Your task to perform on an android device: turn on the 24-hour format for clock Image 0: 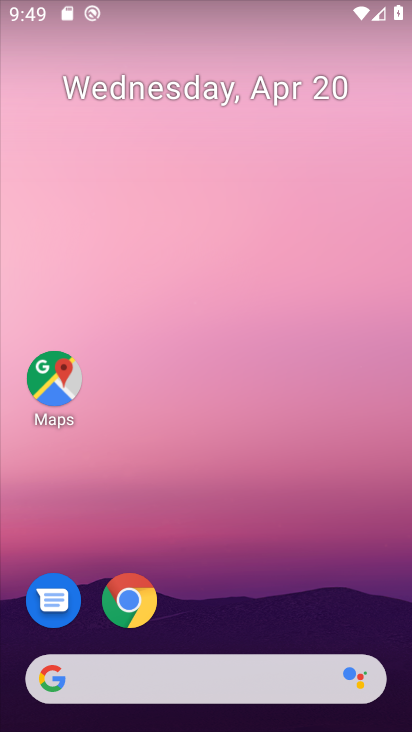
Step 0: drag from (254, 589) to (262, 60)
Your task to perform on an android device: turn on the 24-hour format for clock Image 1: 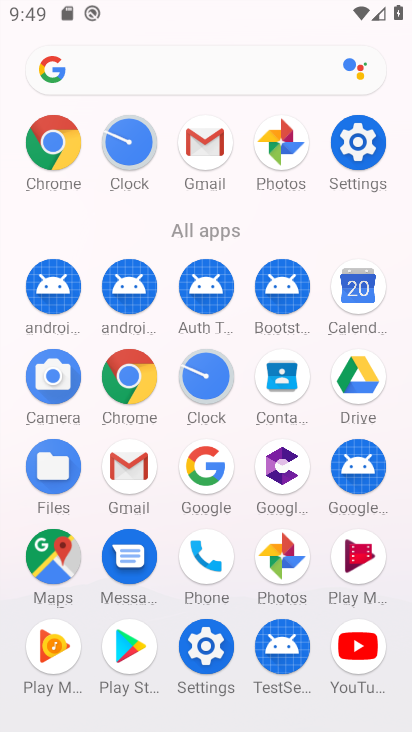
Step 1: click (206, 388)
Your task to perform on an android device: turn on the 24-hour format for clock Image 2: 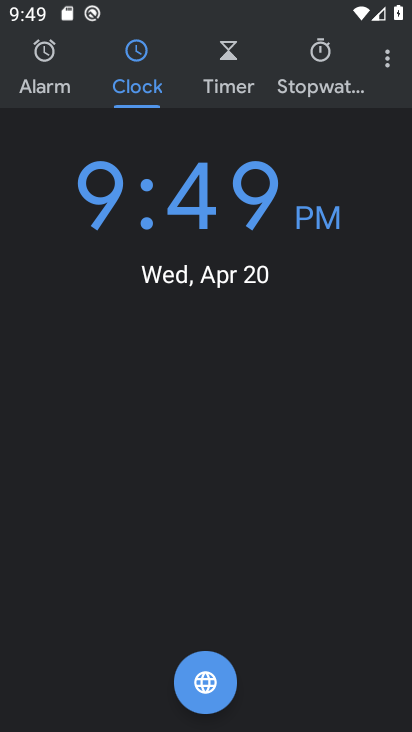
Step 2: click (392, 60)
Your task to perform on an android device: turn on the 24-hour format for clock Image 3: 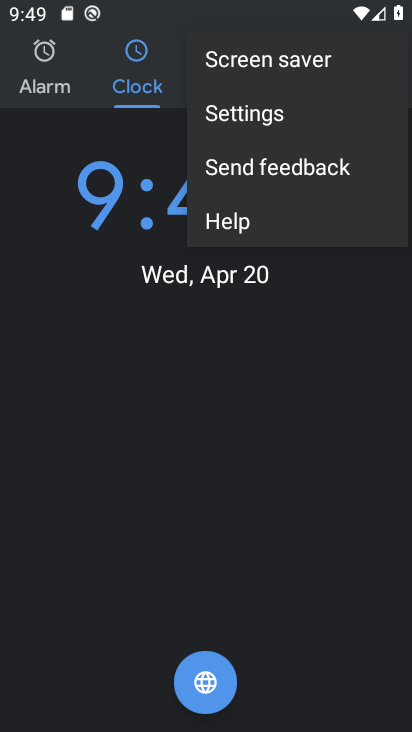
Step 3: click (283, 116)
Your task to perform on an android device: turn on the 24-hour format for clock Image 4: 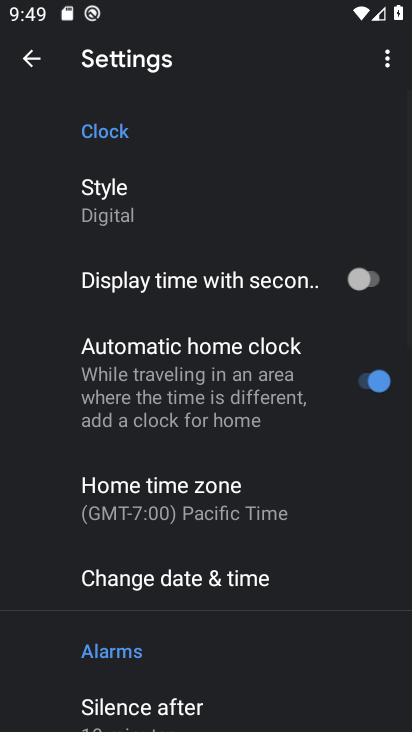
Step 4: drag from (273, 615) to (270, 270)
Your task to perform on an android device: turn on the 24-hour format for clock Image 5: 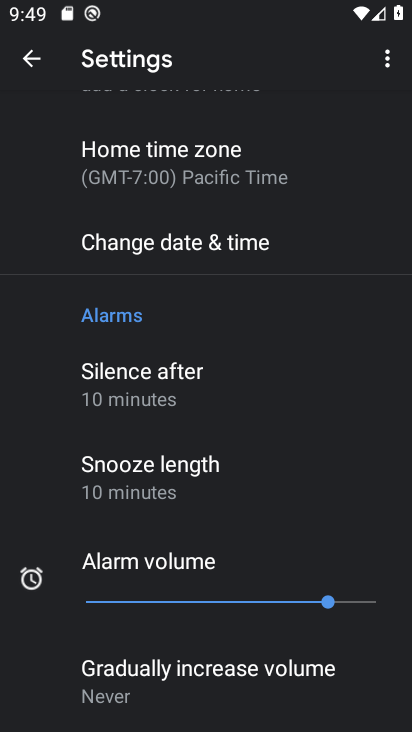
Step 5: drag from (199, 570) to (202, 652)
Your task to perform on an android device: turn on the 24-hour format for clock Image 6: 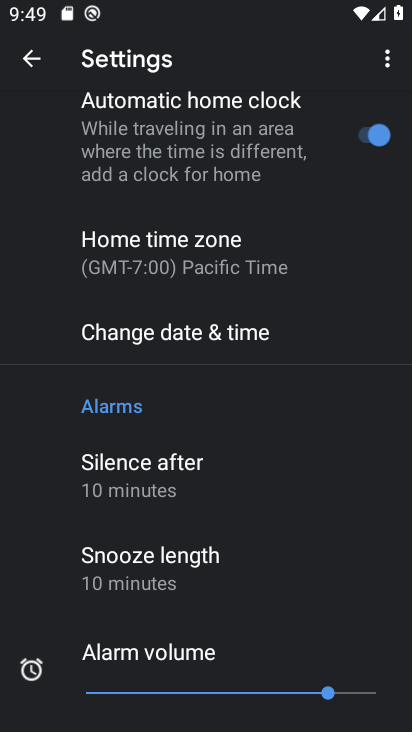
Step 6: click (204, 344)
Your task to perform on an android device: turn on the 24-hour format for clock Image 7: 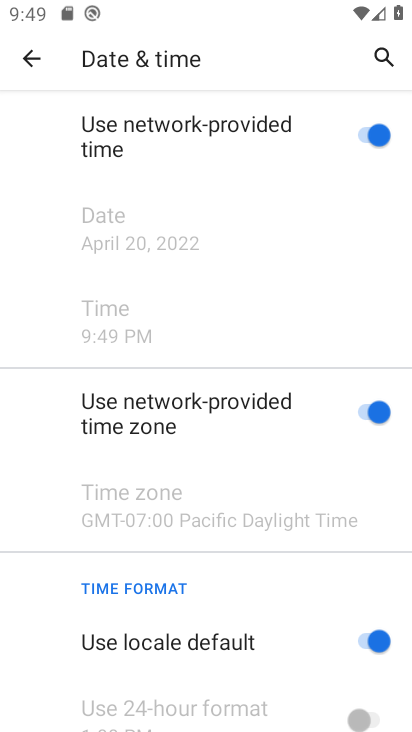
Step 7: drag from (284, 687) to (283, 544)
Your task to perform on an android device: turn on the 24-hour format for clock Image 8: 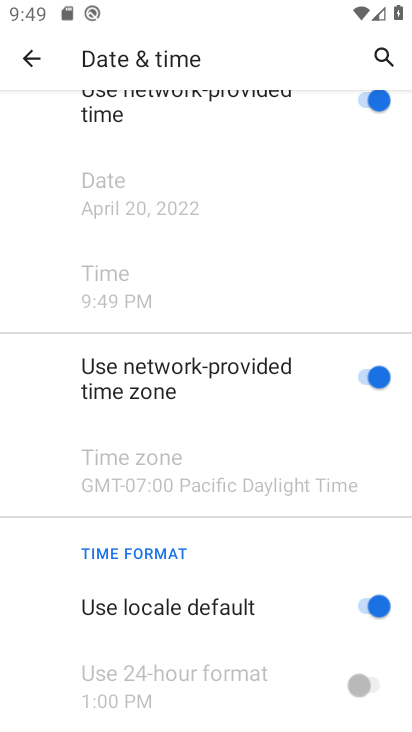
Step 8: click (380, 602)
Your task to perform on an android device: turn on the 24-hour format for clock Image 9: 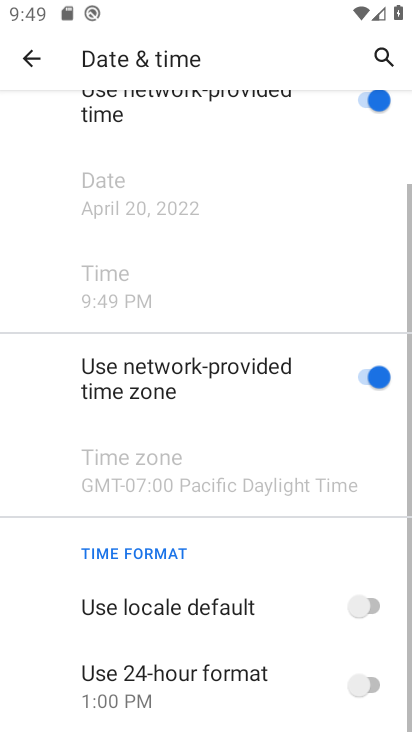
Step 9: click (360, 686)
Your task to perform on an android device: turn on the 24-hour format for clock Image 10: 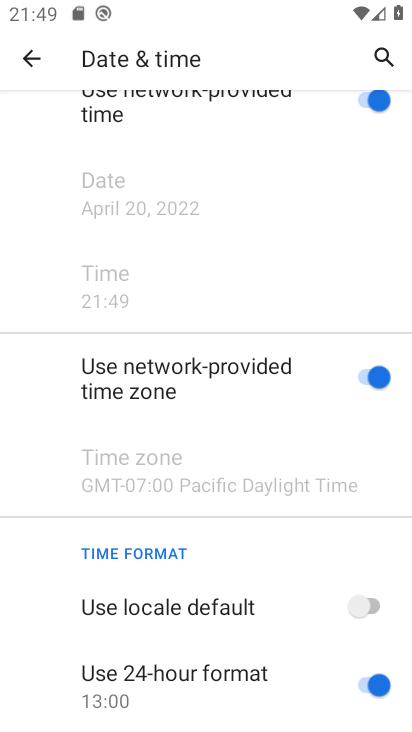
Step 10: task complete